Your task to perform on an android device: What's on my calendar today? Image 0: 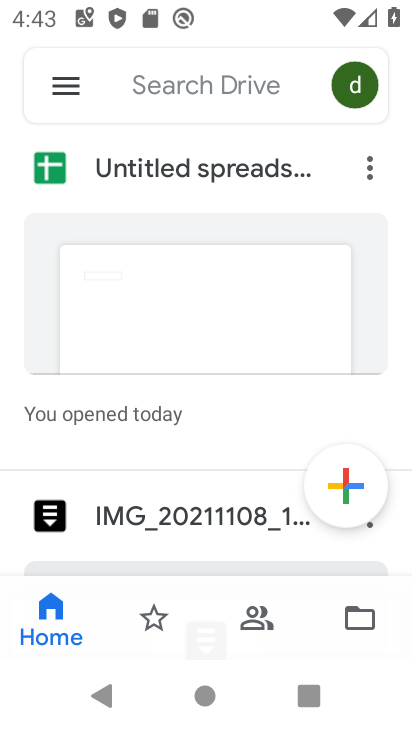
Step 0: press home button
Your task to perform on an android device: What's on my calendar today? Image 1: 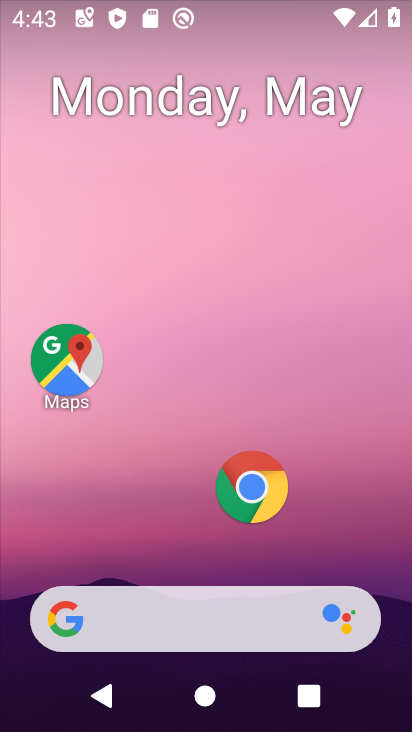
Step 1: drag from (158, 729) to (170, 43)
Your task to perform on an android device: What's on my calendar today? Image 2: 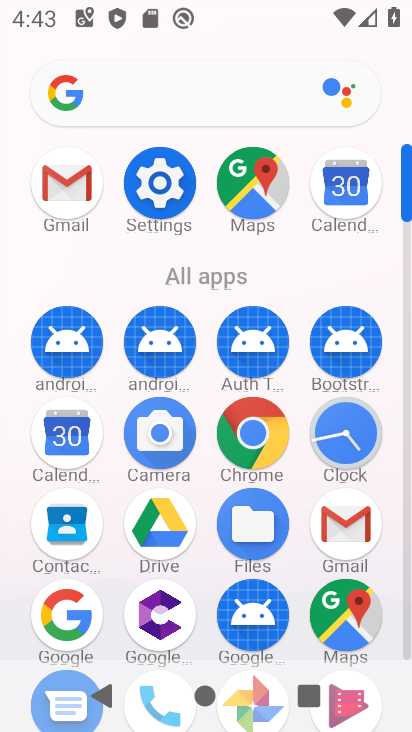
Step 2: click (354, 185)
Your task to perform on an android device: What's on my calendar today? Image 3: 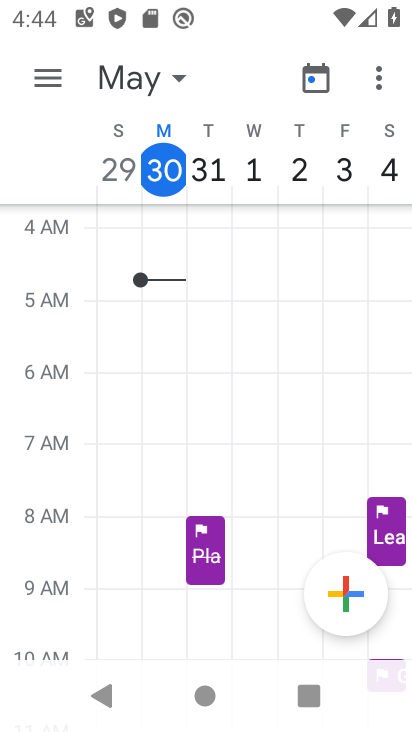
Step 3: task complete